Your task to perform on an android device: Do I have any events this weekend? Image 0: 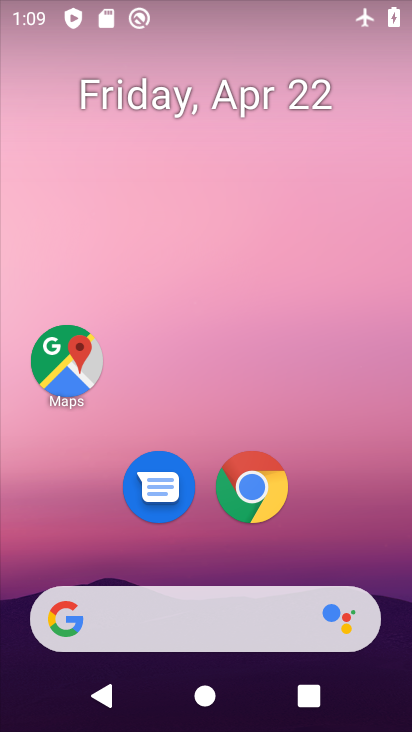
Step 0: drag from (203, 547) to (197, 193)
Your task to perform on an android device: Do I have any events this weekend? Image 1: 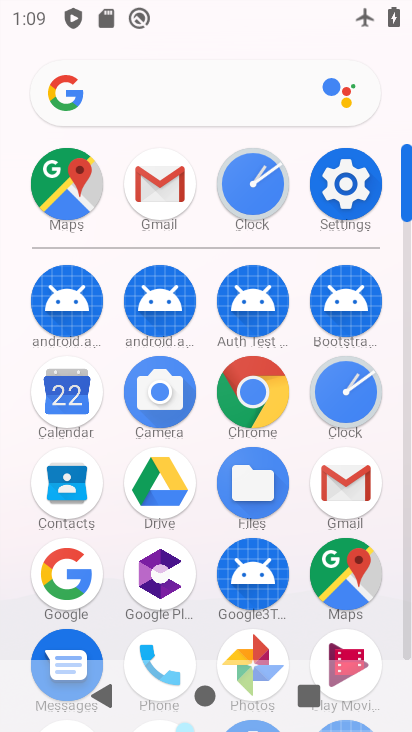
Step 1: click (78, 383)
Your task to perform on an android device: Do I have any events this weekend? Image 2: 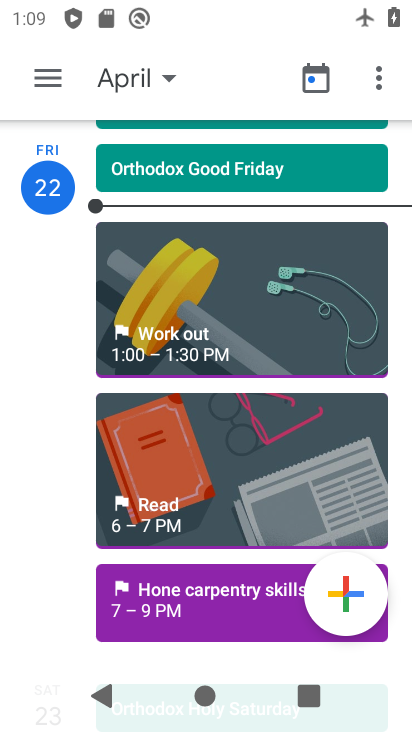
Step 2: click (139, 83)
Your task to perform on an android device: Do I have any events this weekend? Image 3: 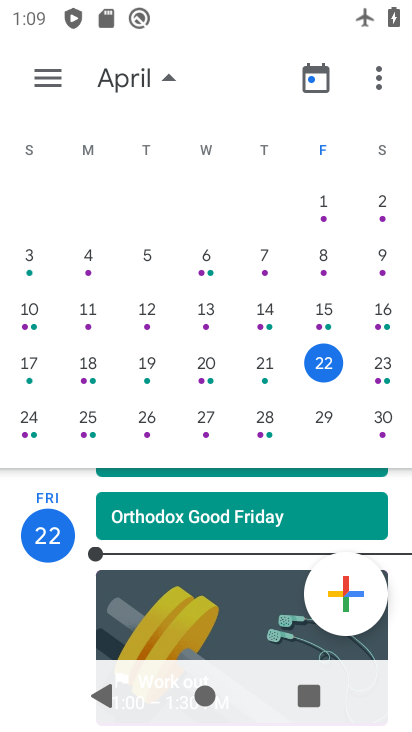
Step 3: click (369, 372)
Your task to perform on an android device: Do I have any events this weekend? Image 4: 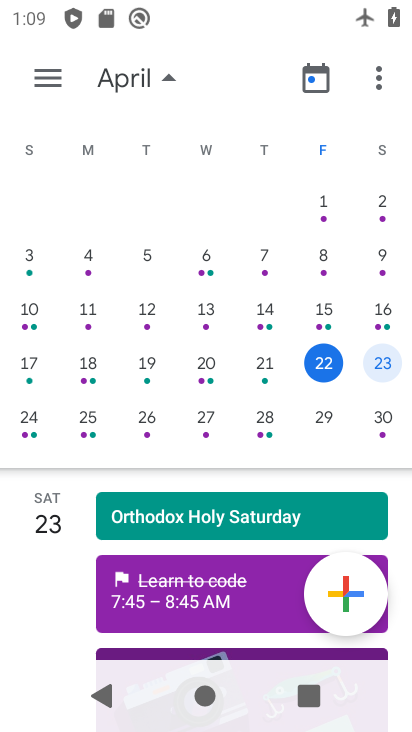
Step 4: drag from (276, 601) to (266, 389)
Your task to perform on an android device: Do I have any events this weekend? Image 5: 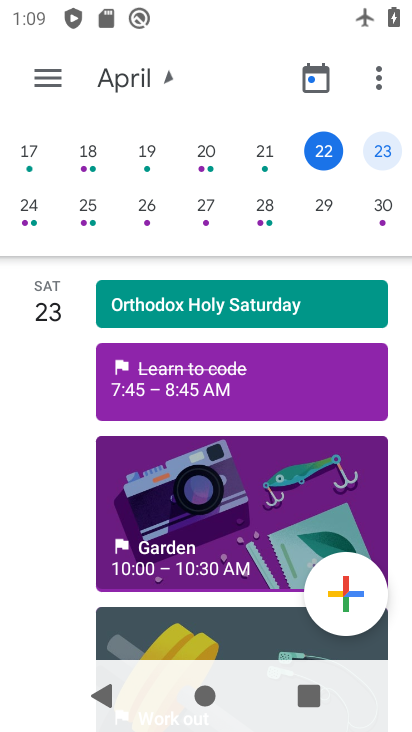
Step 5: click (191, 499)
Your task to perform on an android device: Do I have any events this weekend? Image 6: 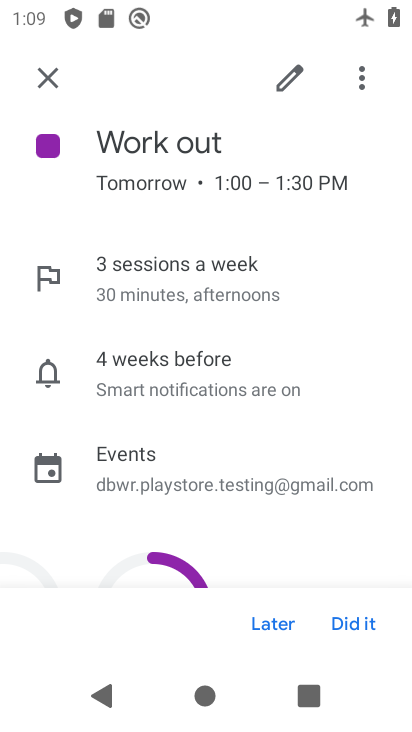
Step 6: task complete